Your task to perform on an android device: change notification settings in the gmail app Image 0: 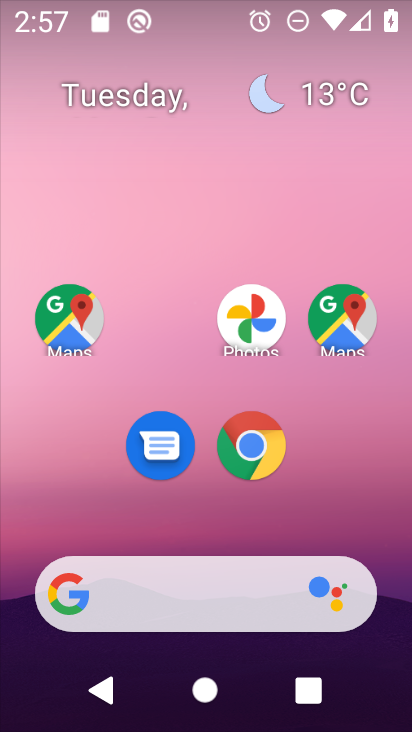
Step 0: drag from (387, 553) to (375, 173)
Your task to perform on an android device: change notification settings in the gmail app Image 1: 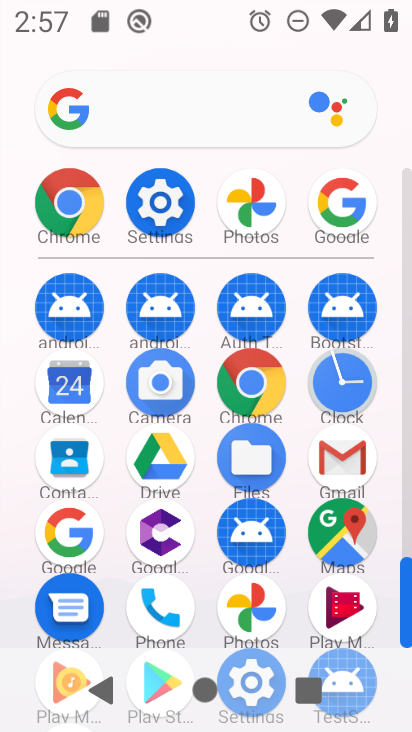
Step 1: click (351, 469)
Your task to perform on an android device: change notification settings in the gmail app Image 2: 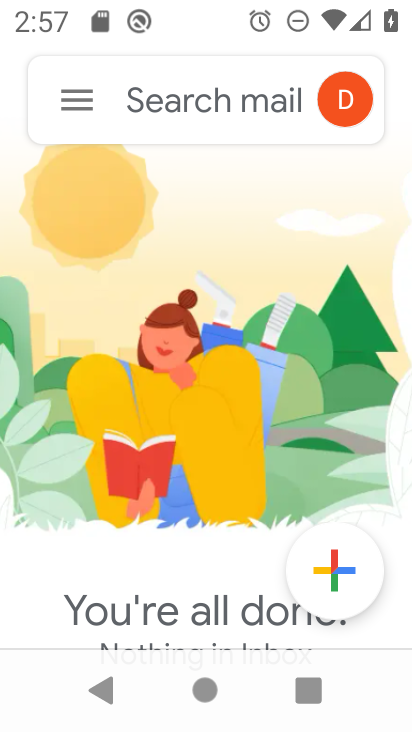
Step 2: click (78, 112)
Your task to perform on an android device: change notification settings in the gmail app Image 3: 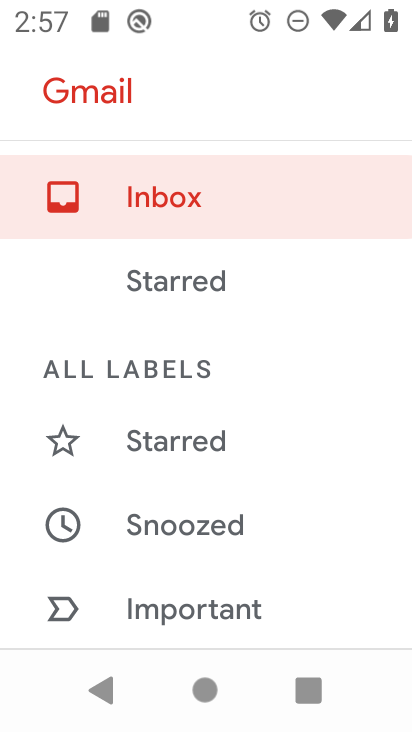
Step 3: drag from (366, 519) to (362, 447)
Your task to perform on an android device: change notification settings in the gmail app Image 4: 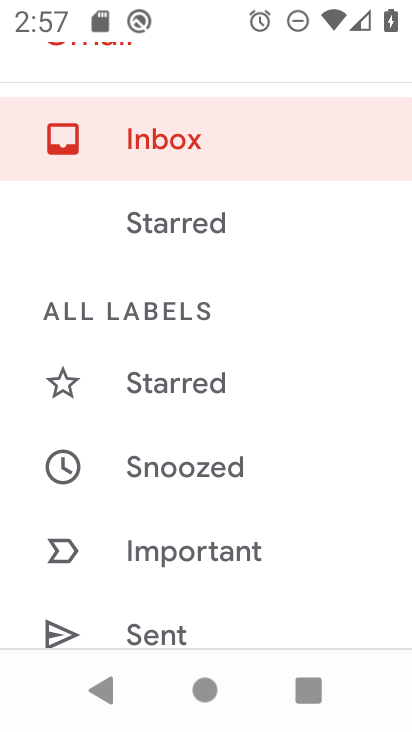
Step 4: drag from (367, 543) to (367, 446)
Your task to perform on an android device: change notification settings in the gmail app Image 5: 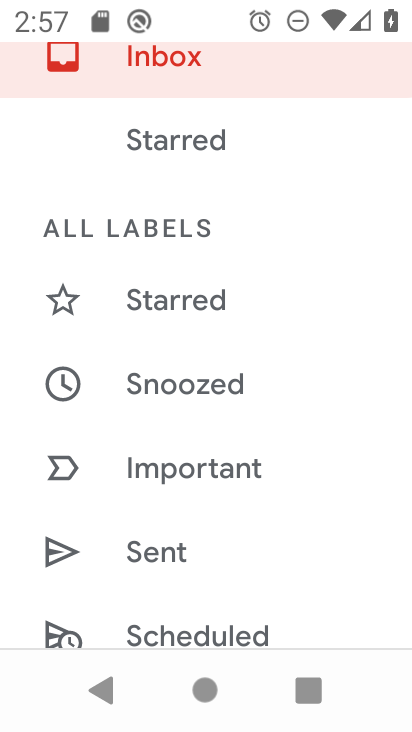
Step 5: drag from (368, 563) to (358, 463)
Your task to perform on an android device: change notification settings in the gmail app Image 6: 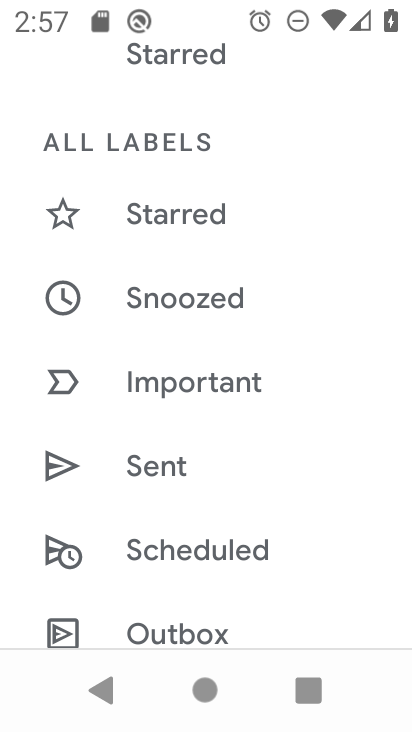
Step 6: drag from (350, 567) to (351, 450)
Your task to perform on an android device: change notification settings in the gmail app Image 7: 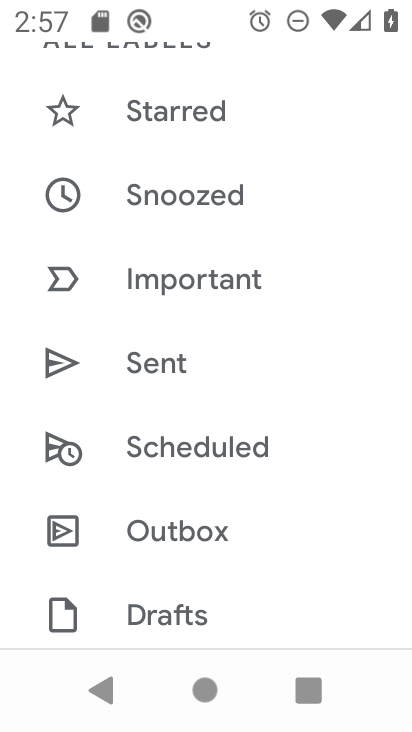
Step 7: drag from (347, 569) to (351, 461)
Your task to perform on an android device: change notification settings in the gmail app Image 8: 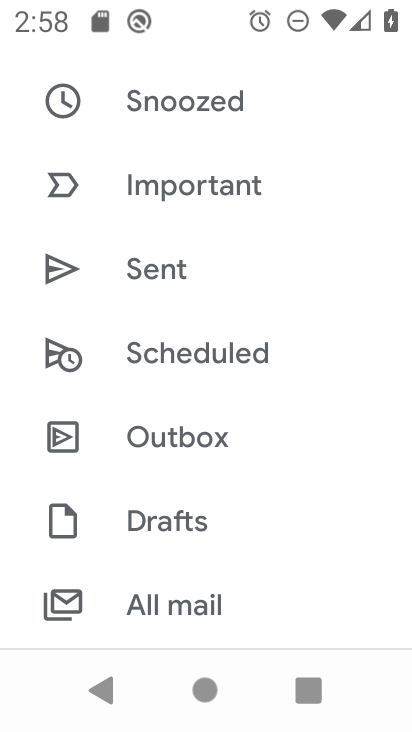
Step 8: drag from (324, 553) to (335, 415)
Your task to perform on an android device: change notification settings in the gmail app Image 9: 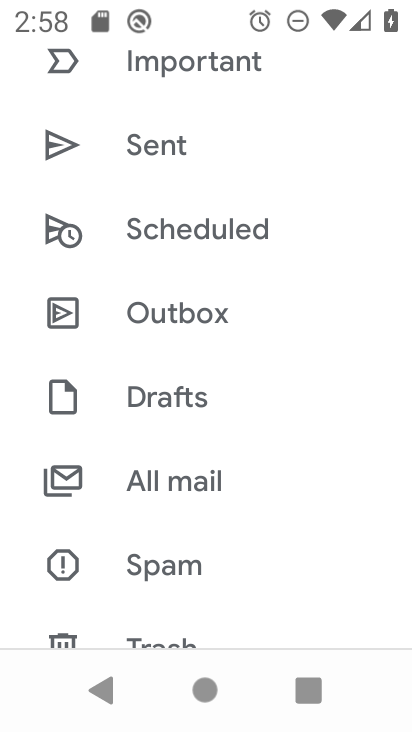
Step 9: drag from (341, 524) to (342, 431)
Your task to perform on an android device: change notification settings in the gmail app Image 10: 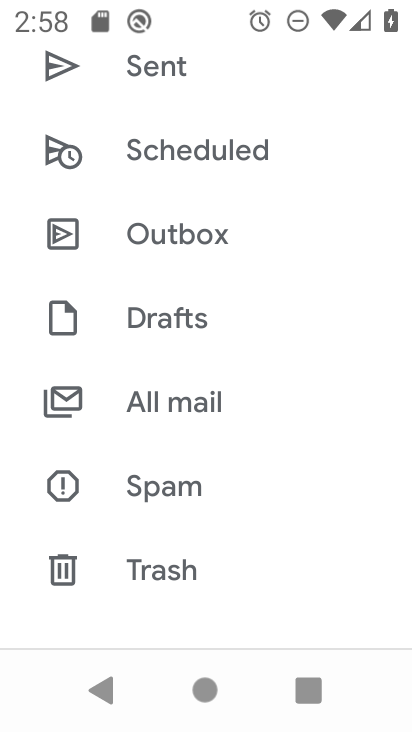
Step 10: drag from (346, 555) to (349, 427)
Your task to perform on an android device: change notification settings in the gmail app Image 11: 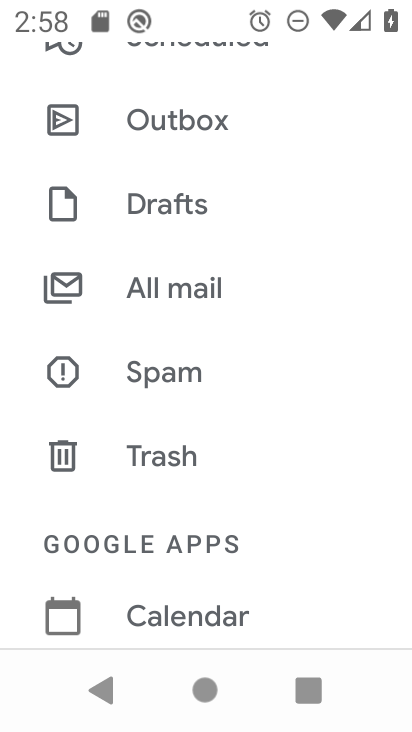
Step 11: drag from (342, 572) to (346, 465)
Your task to perform on an android device: change notification settings in the gmail app Image 12: 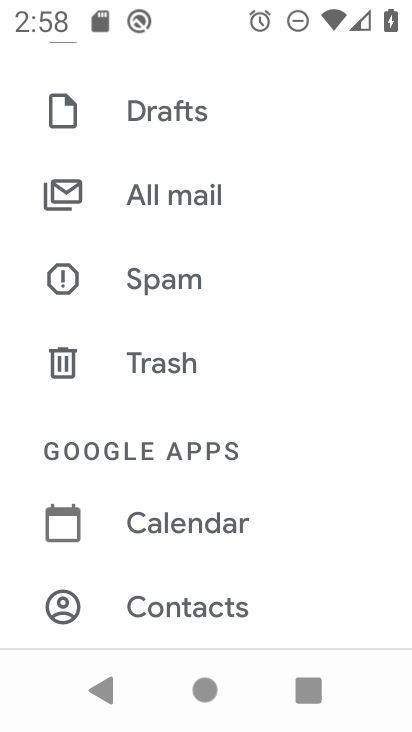
Step 12: drag from (332, 561) to (326, 375)
Your task to perform on an android device: change notification settings in the gmail app Image 13: 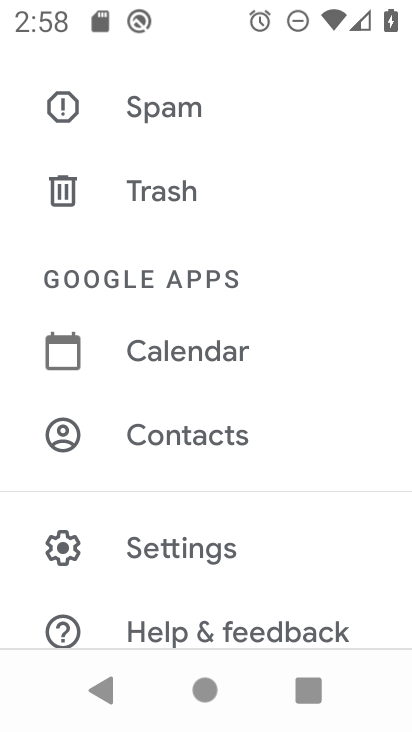
Step 13: click (195, 559)
Your task to perform on an android device: change notification settings in the gmail app Image 14: 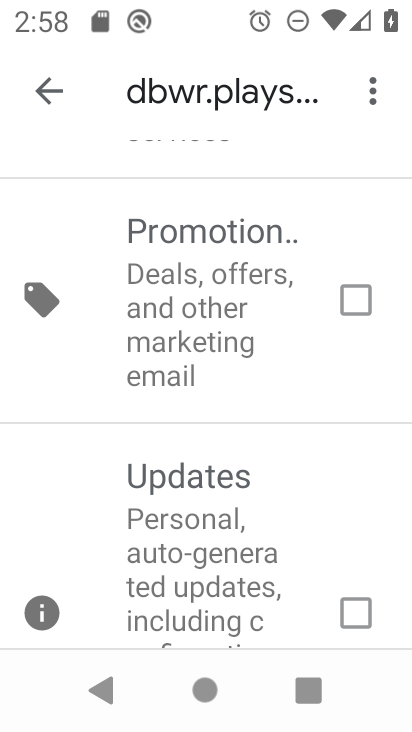
Step 14: click (54, 99)
Your task to perform on an android device: change notification settings in the gmail app Image 15: 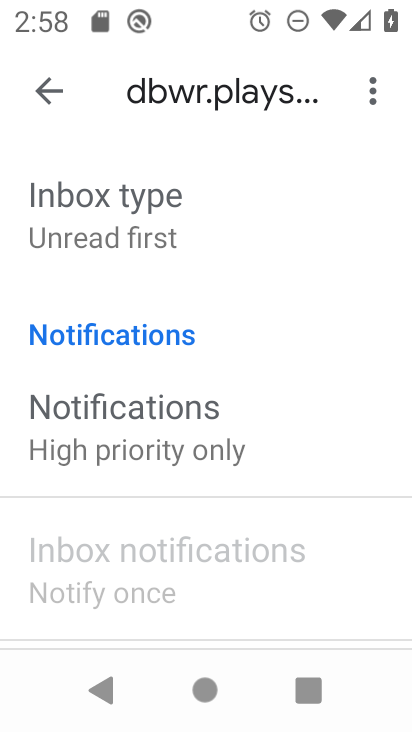
Step 15: drag from (282, 478) to (282, 401)
Your task to perform on an android device: change notification settings in the gmail app Image 16: 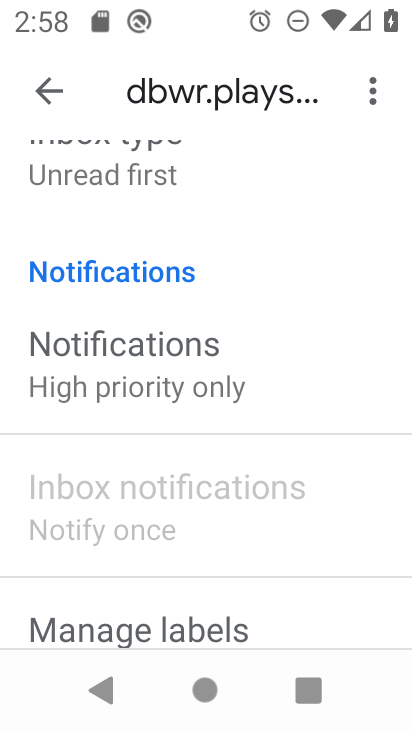
Step 16: drag from (268, 518) to (281, 443)
Your task to perform on an android device: change notification settings in the gmail app Image 17: 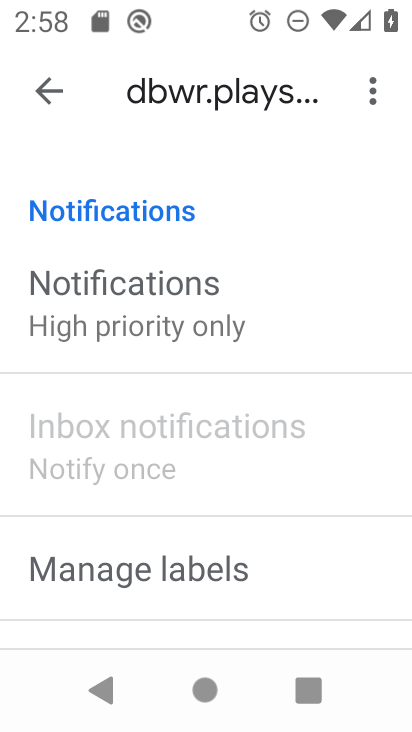
Step 17: click (190, 301)
Your task to perform on an android device: change notification settings in the gmail app Image 18: 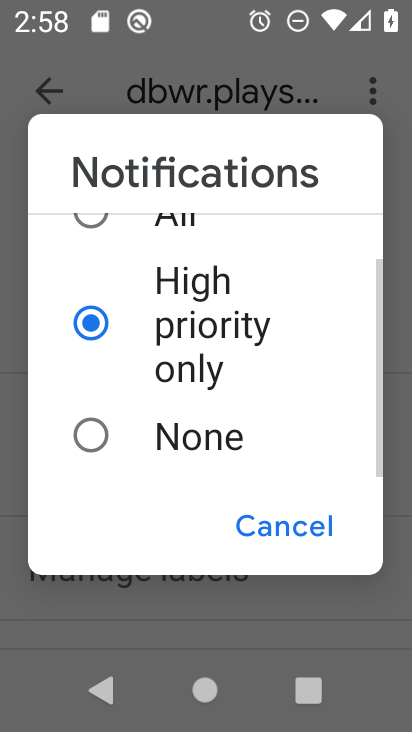
Step 18: click (192, 438)
Your task to perform on an android device: change notification settings in the gmail app Image 19: 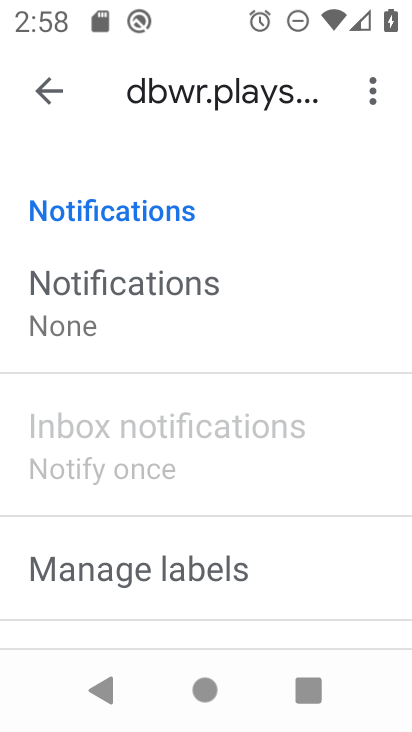
Step 19: task complete